Your task to perform on an android device: Open Maps and search for coffee Image 0: 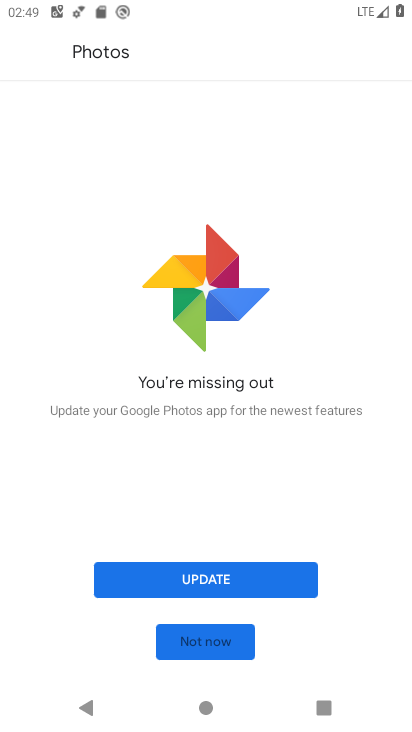
Step 0: press home button
Your task to perform on an android device: Open Maps and search for coffee Image 1: 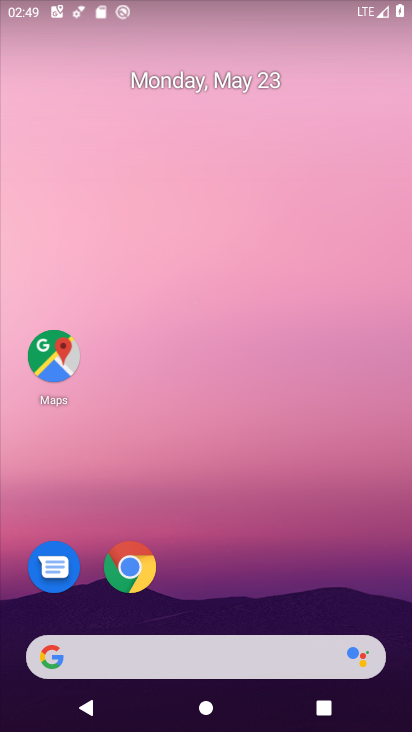
Step 1: drag from (264, 572) to (233, 184)
Your task to perform on an android device: Open Maps and search for coffee Image 2: 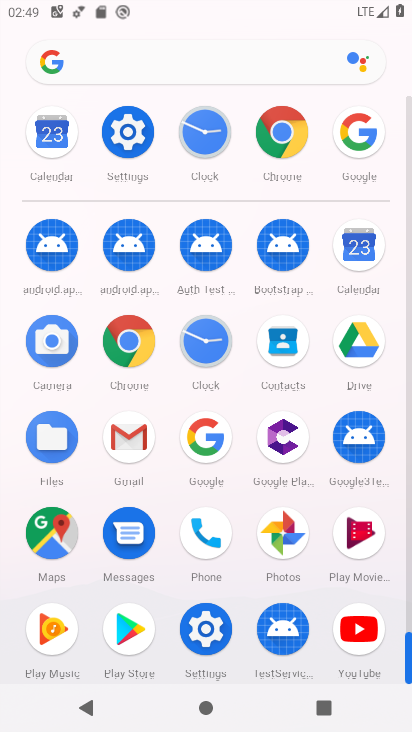
Step 2: click (54, 541)
Your task to perform on an android device: Open Maps and search for coffee Image 3: 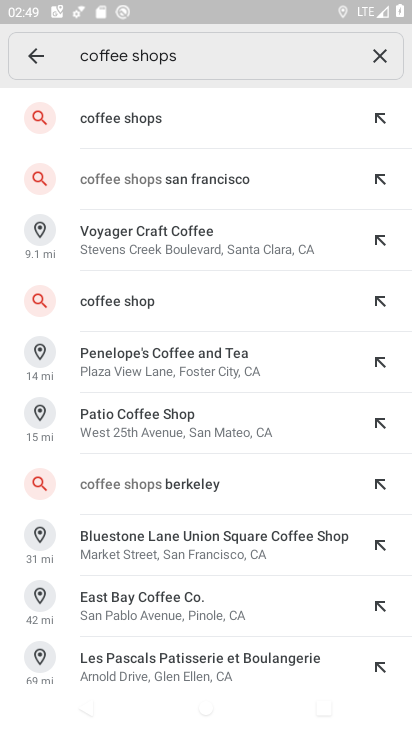
Step 3: click (216, 141)
Your task to perform on an android device: Open Maps and search for coffee Image 4: 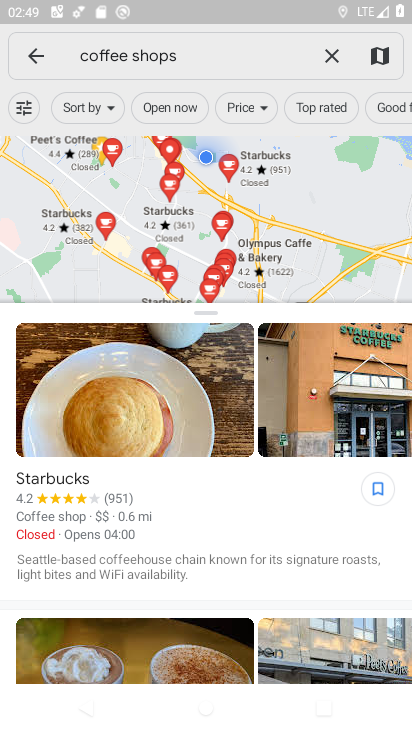
Step 4: task complete